Your task to perform on an android device: Go to battery settings Image 0: 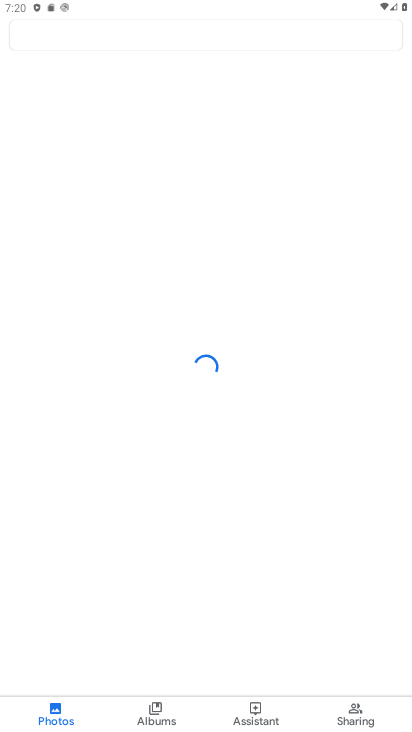
Step 0: press home button
Your task to perform on an android device: Go to battery settings Image 1: 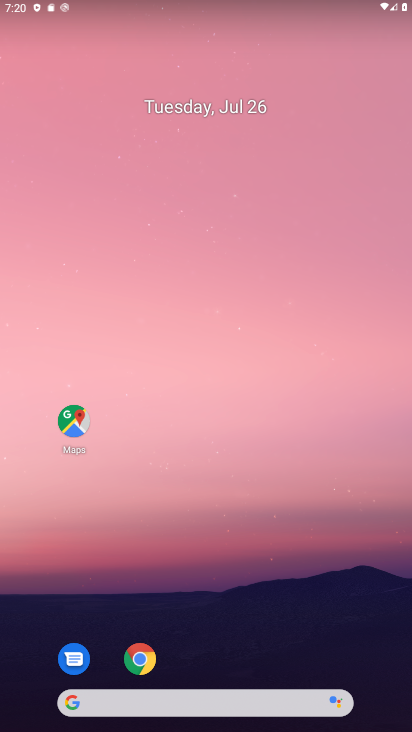
Step 1: drag from (196, 654) to (223, 2)
Your task to perform on an android device: Go to battery settings Image 2: 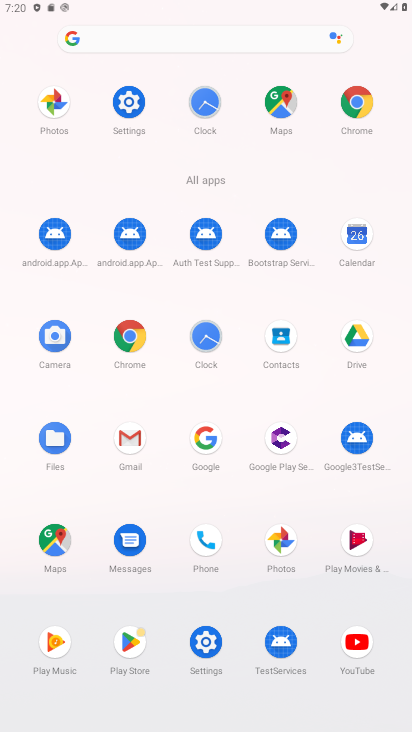
Step 2: click (116, 107)
Your task to perform on an android device: Go to battery settings Image 3: 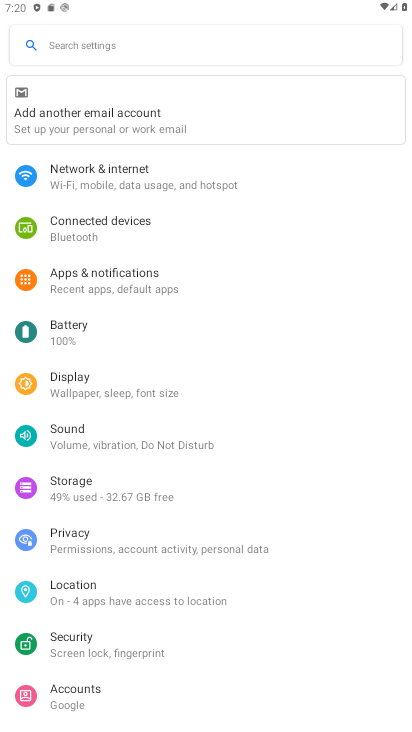
Step 3: click (99, 342)
Your task to perform on an android device: Go to battery settings Image 4: 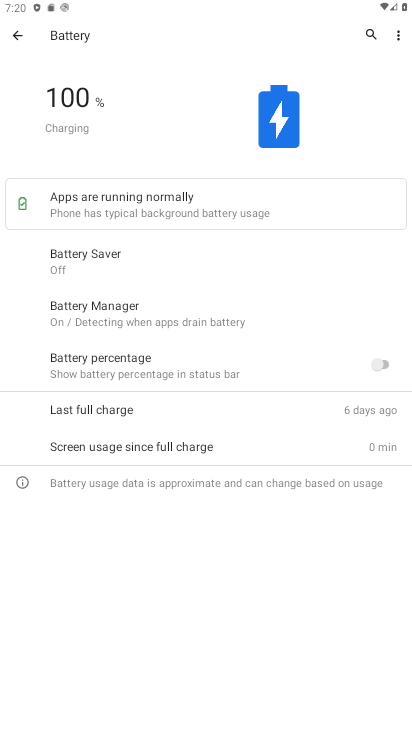
Step 4: task complete